Your task to perform on an android device: manage bookmarks in the chrome app Image 0: 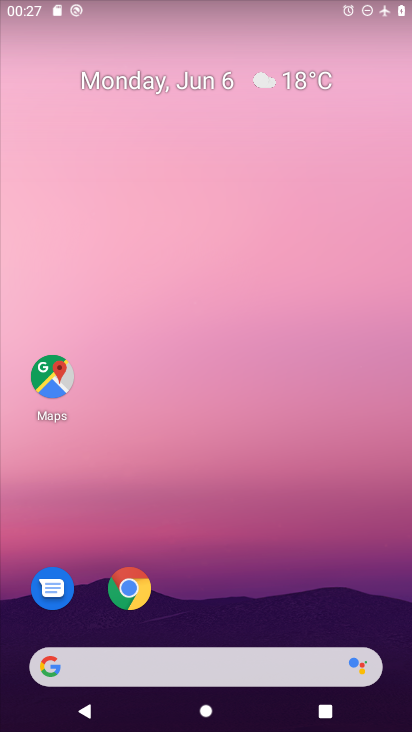
Step 0: drag from (346, 626) to (385, 193)
Your task to perform on an android device: manage bookmarks in the chrome app Image 1: 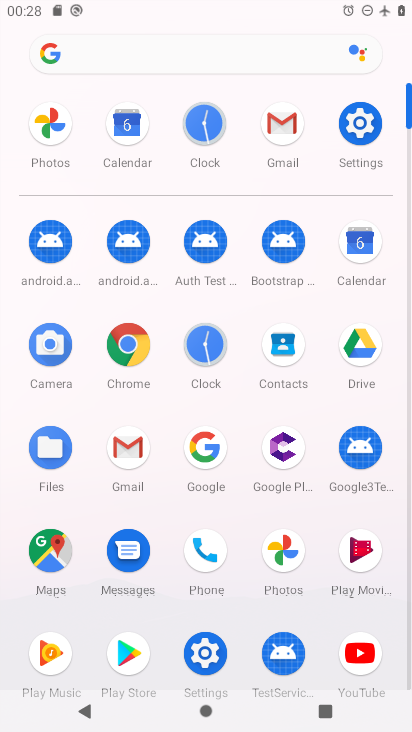
Step 1: click (139, 348)
Your task to perform on an android device: manage bookmarks in the chrome app Image 2: 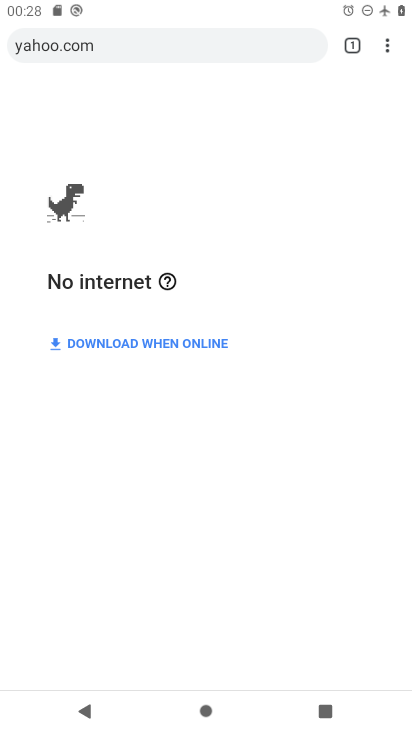
Step 2: click (384, 47)
Your task to perform on an android device: manage bookmarks in the chrome app Image 3: 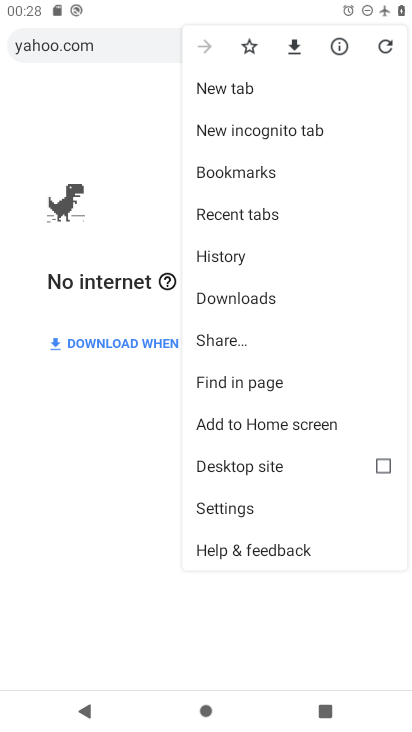
Step 3: click (279, 179)
Your task to perform on an android device: manage bookmarks in the chrome app Image 4: 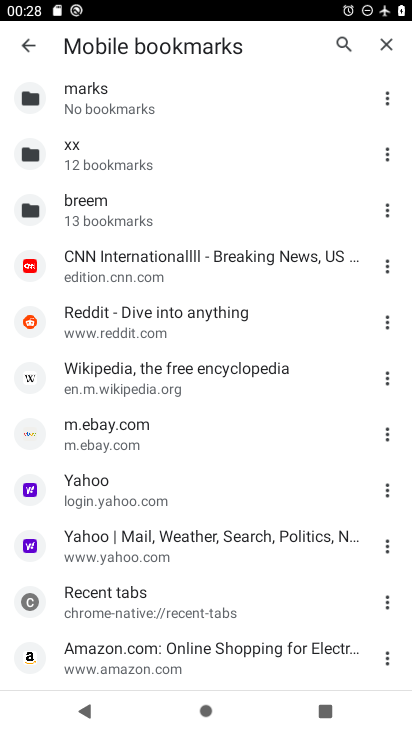
Step 4: click (388, 158)
Your task to perform on an android device: manage bookmarks in the chrome app Image 5: 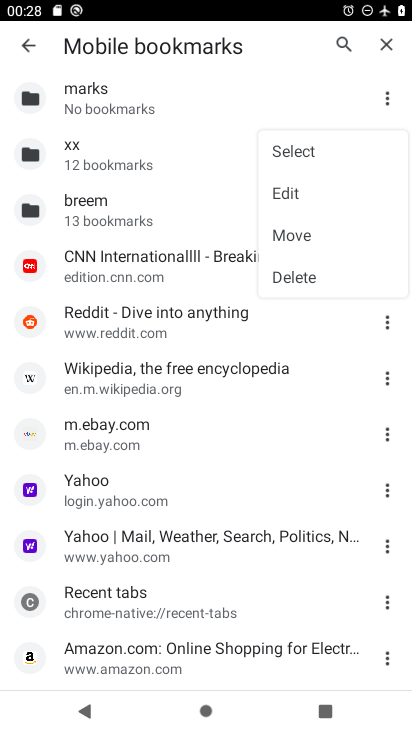
Step 5: click (303, 195)
Your task to perform on an android device: manage bookmarks in the chrome app Image 6: 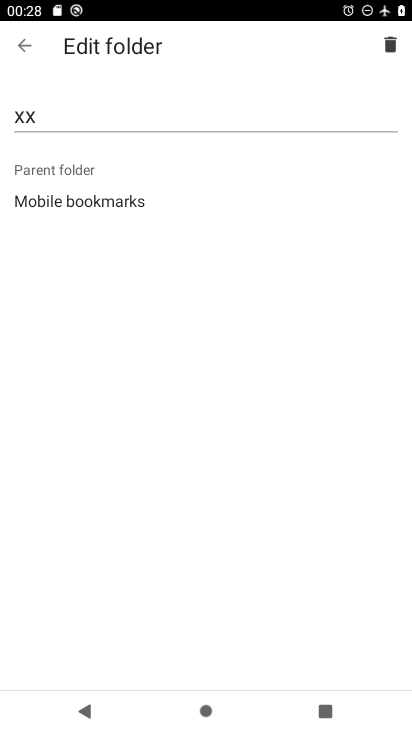
Step 6: click (95, 116)
Your task to perform on an android device: manage bookmarks in the chrome app Image 7: 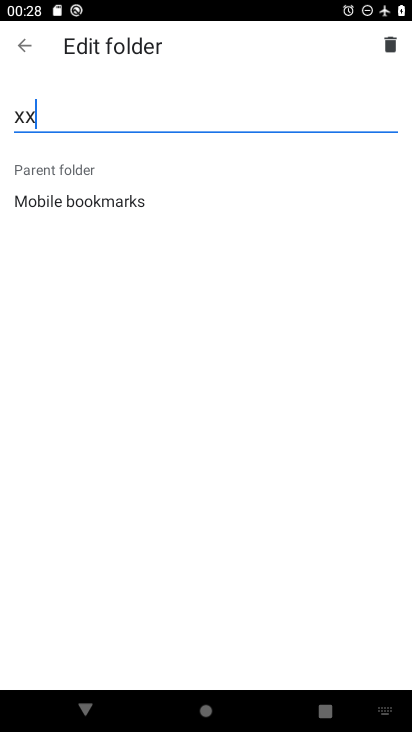
Step 7: type "x"
Your task to perform on an android device: manage bookmarks in the chrome app Image 8: 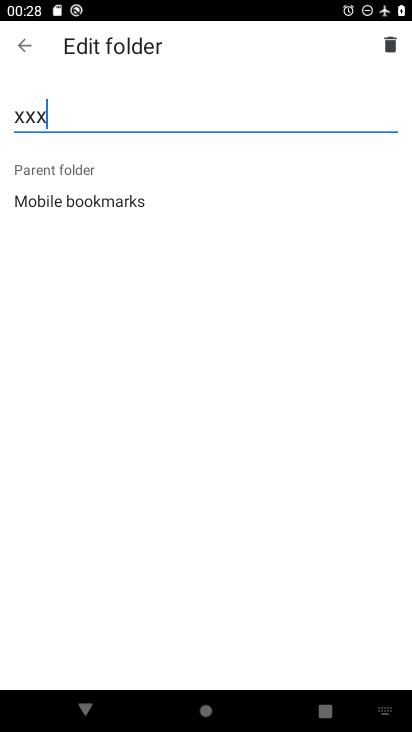
Step 8: click (23, 45)
Your task to perform on an android device: manage bookmarks in the chrome app Image 9: 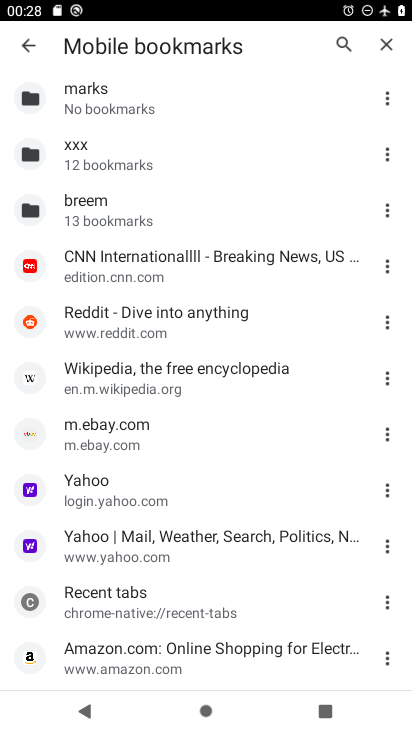
Step 9: task complete